Your task to perform on an android device: Open accessibility settings Image 0: 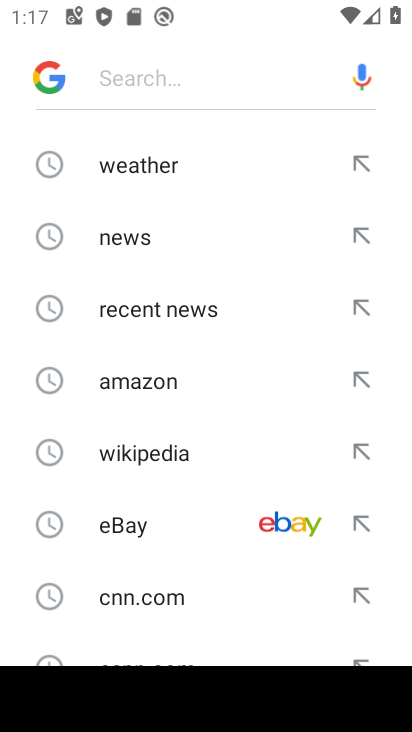
Step 0: press home button
Your task to perform on an android device: Open accessibility settings Image 1: 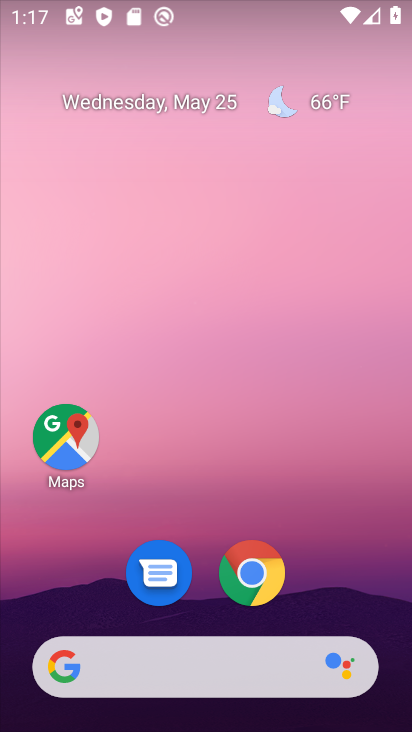
Step 1: drag from (369, 607) to (348, 66)
Your task to perform on an android device: Open accessibility settings Image 2: 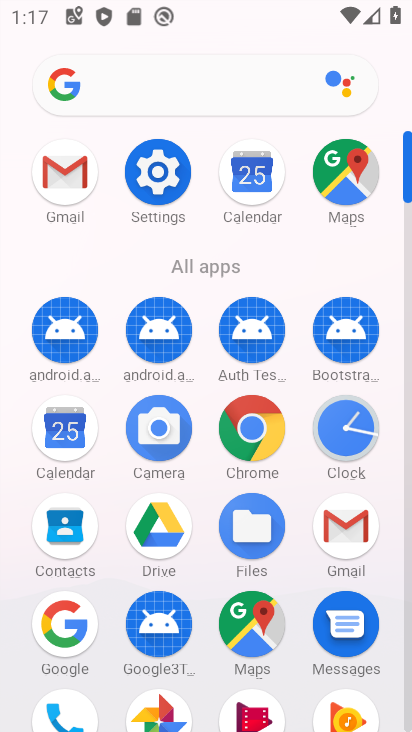
Step 2: click (407, 706)
Your task to perform on an android device: Open accessibility settings Image 3: 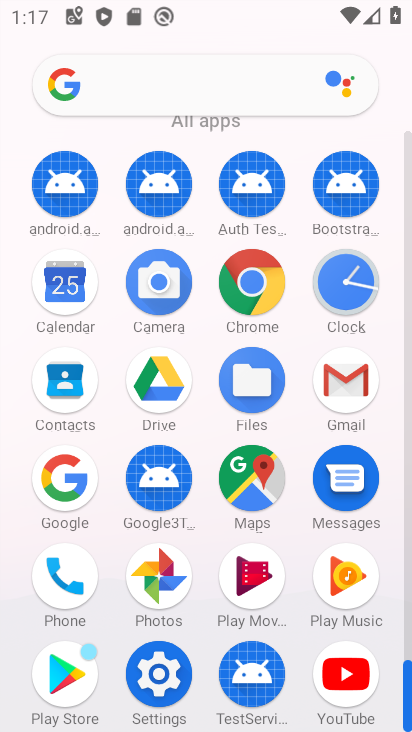
Step 3: click (158, 673)
Your task to perform on an android device: Open accessibility settings Image 4: 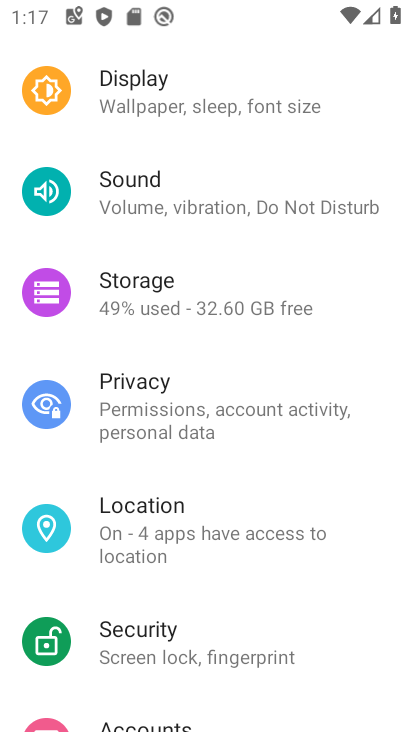
Step 4: drag from (354, 674) to (383, 132)
Your task to perform on an android device: Open accessibility settings Image 5: 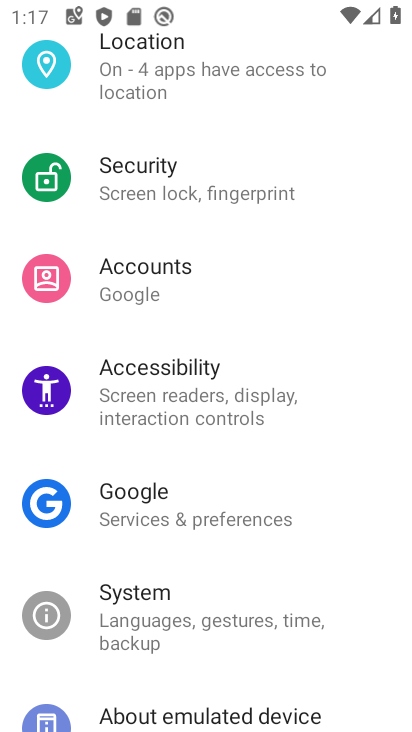
Step 5: click (130, 397)
Your task to perform on an android device: Open accessibility settings Image 6: 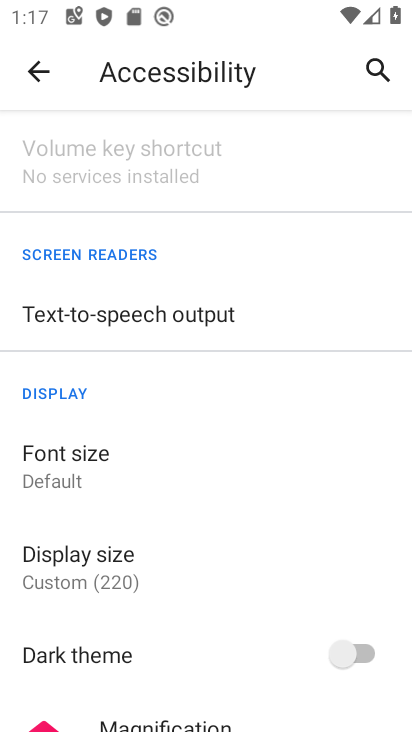
Step 6: task complete